Your task to perform on an android device: remove spam from my inbox in the gmail app Image 0: 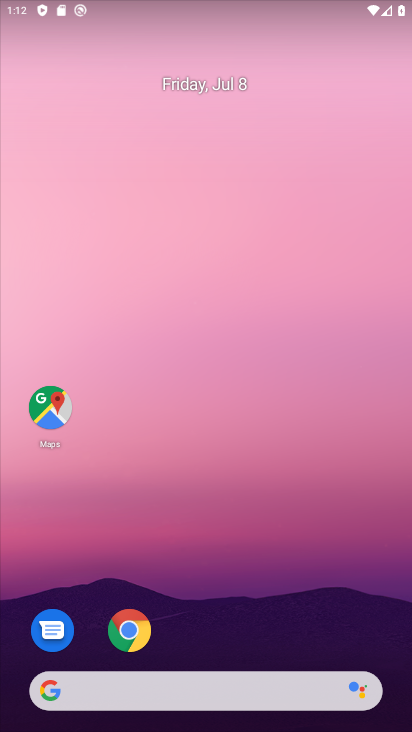
Step 0: click (96, 18)
Your task to perform on an android device: remove spam from my inbox in the gmail app Image 1: 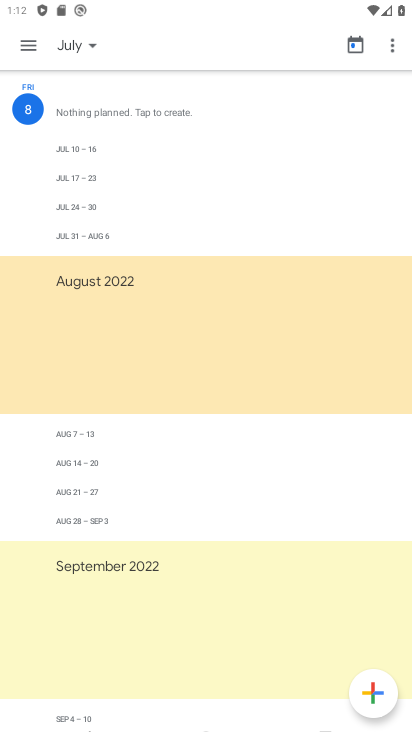
Step 1: drag from (200, 258) to (194, 207)
Your task to perform on an android device: remove spam from my inbox in the gmail app Image 2: 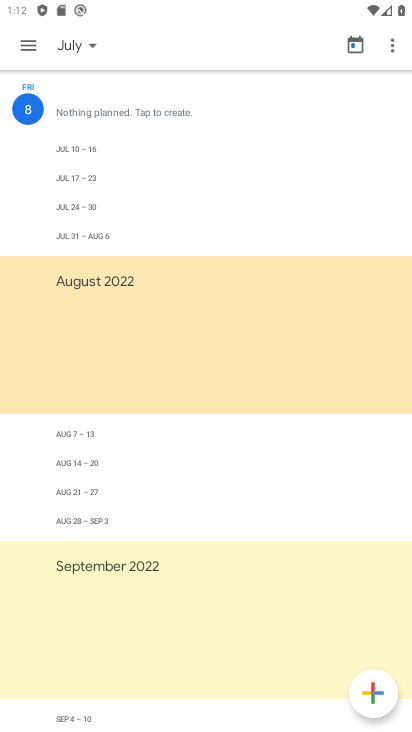
Step 2: press back button
Your task to perform on an android device: remove spam from my inbox in the gmail app Image 3: 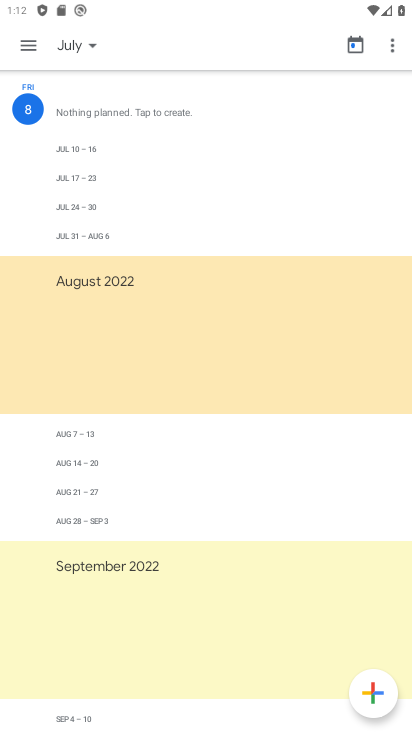
Step 3: press back button
Your task to perform on an android device: remove spam from my inbox in the gmail app Image 4: 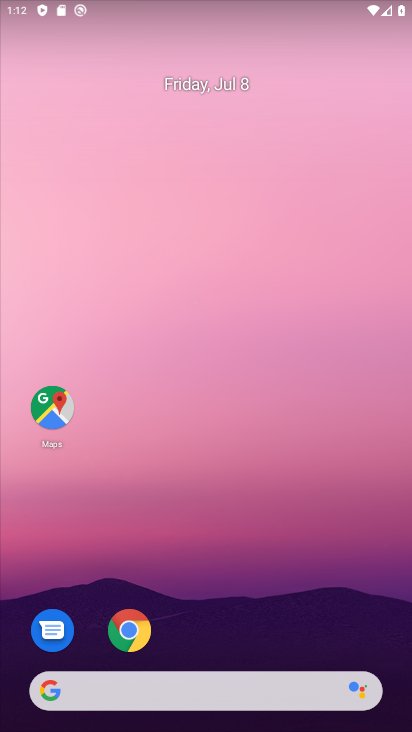
Step 4: drag from (234, 625) to (182, 252)
Your task to perform on an android device: remove spam from my inbox in the gmail app Image 5: 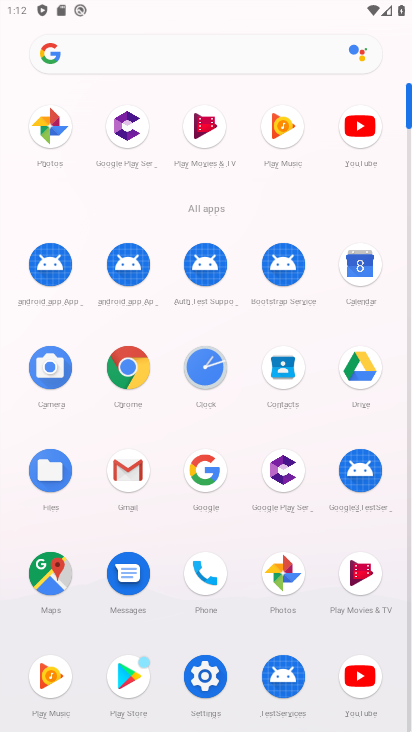
Step 5: click (126, 466)
Your task to perform on an android device: remove spam from my inbox in the gmail app Image 6: 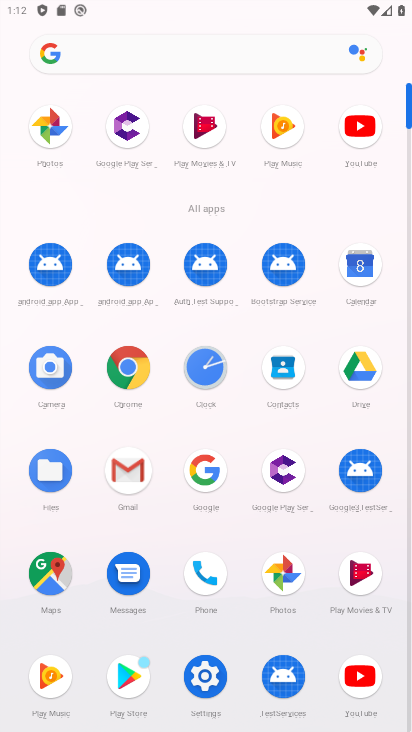
Step 6: click (128, 464)
Your task to perform on an android device: remove spam from my inbox in the gmail app Image 7: 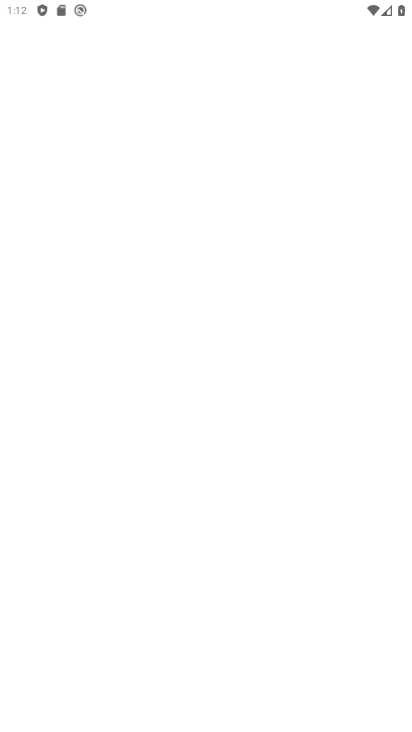
Step 7: click (129, 463)
Your task to perform on an android device: remove spam from my inbox in the gmail app Image 8: 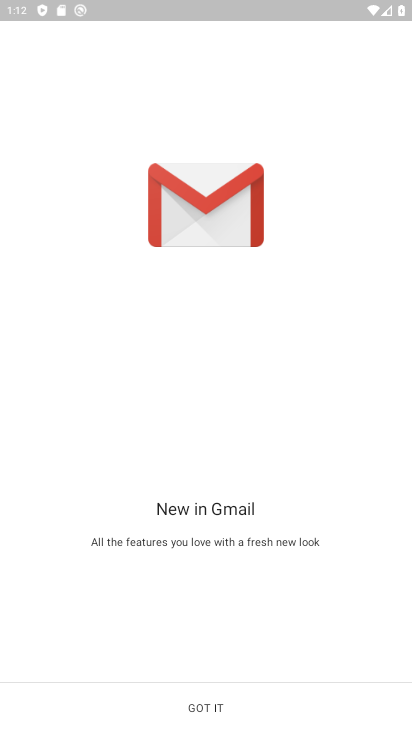
Step 8: click (210, 708)
Your task to perform on an android device: remove spam from my inbox in the gmail app Image 9: 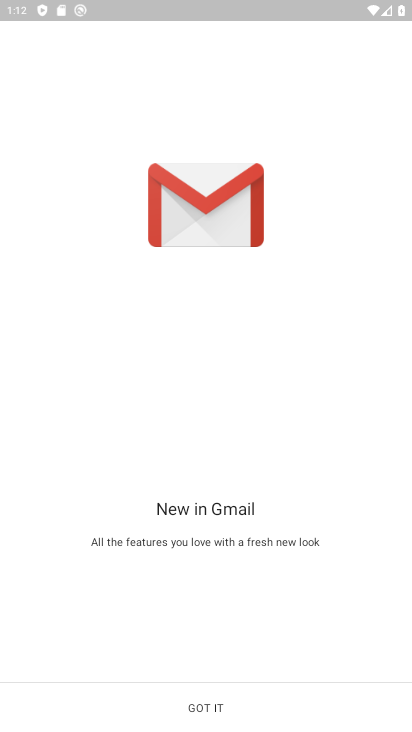
Step 9: click (210, 707)
Your task to perform on an android device: remove spam from my inbox in the gmail app Image 10: 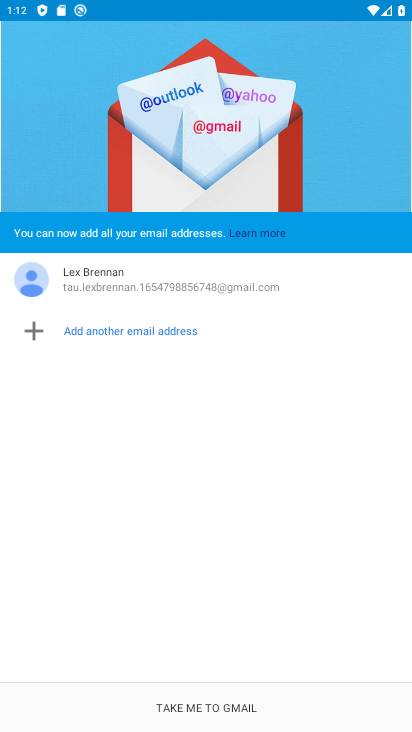
Step 10: click (206, 701)
Your task to perform on an android device: remove spam from my inbox in the gmail app Image 11: 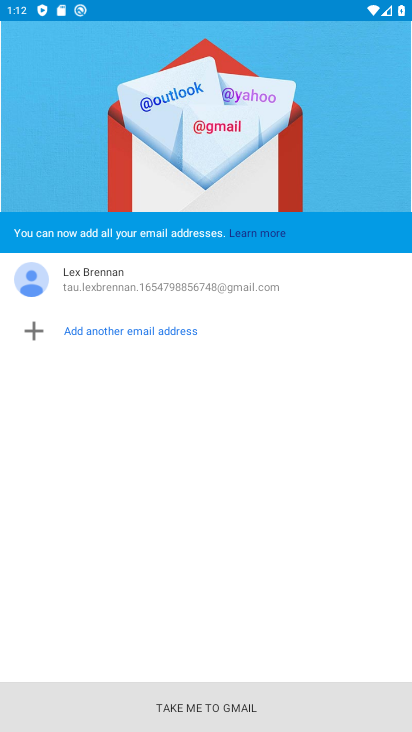
Step 11: click (206, 701)
Your task to perform on an android device: remove spam from my inbox in the gmail app Image 12: 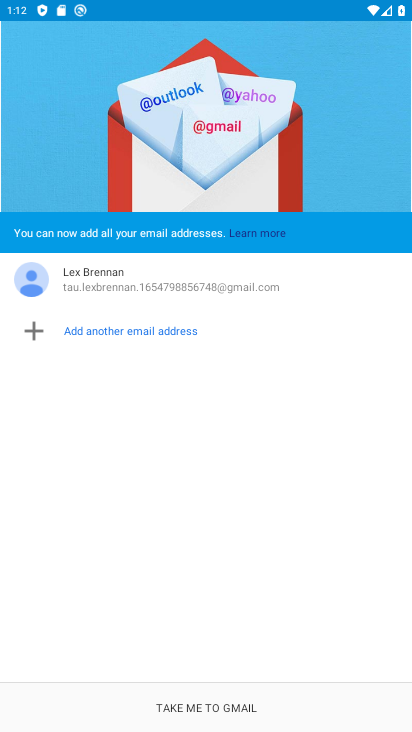
Step 12: click (206, 701)
Your task to perform on an android device: remove spam from my inbox in the gmail app Image 13: 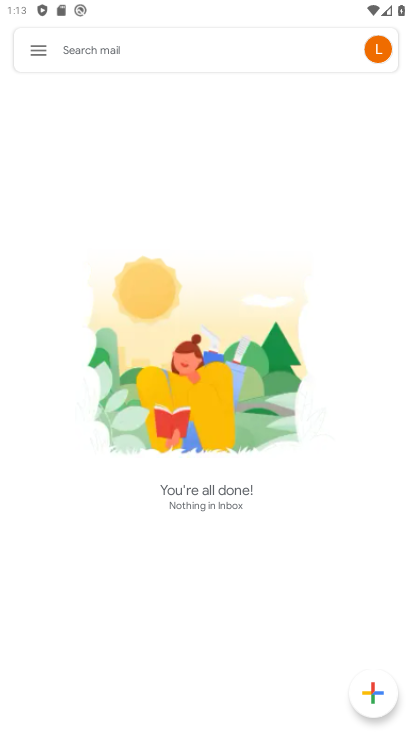
Step 13: click (37, 51)
Your task to perform on an android device: remove spam from my inbox in the gmail app Image 14: 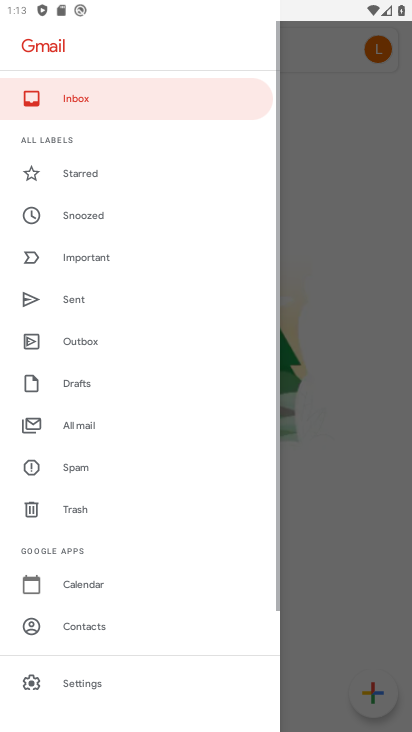
Step 14: click (37, 45)
Your task to perform on an android device: remove spam from my inbox in the gmail app Image 15: 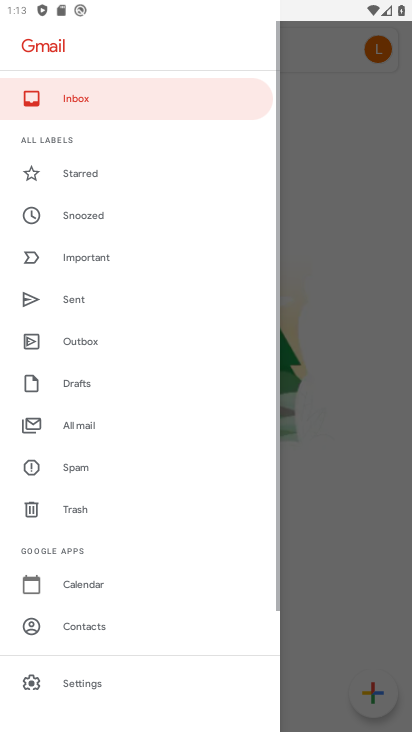
Step 15: click (37, 46)
Your task to perform on an android device: remove spam from my inbox in the gmail app Image 16: 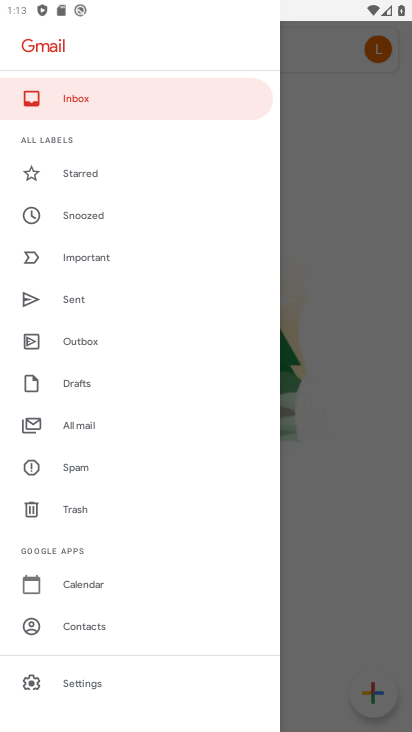
Step 16: click (67, 461)
Your task to perform on an android device: remove spam from my inbox in the gmail app Image 17: 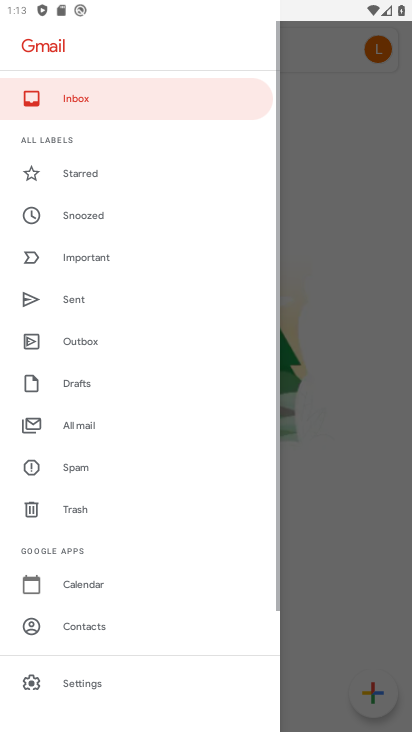
Step 17: click (67, 461)
Your task to perform on an android device: remove spam from my inbox in the gmail app Image 18: 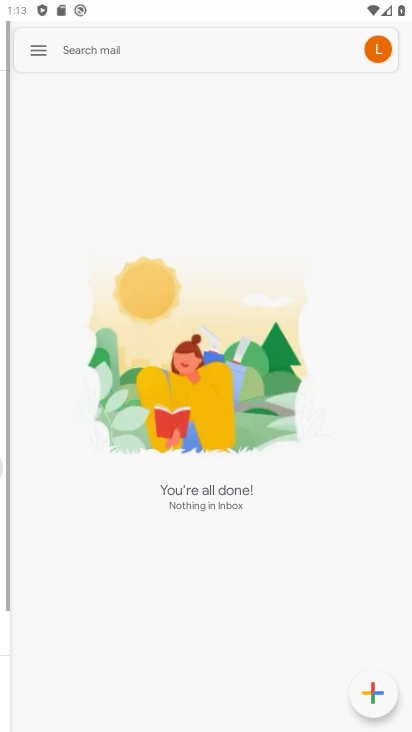
Step 18: click (67, 461)
Your task to perform on an android device: remove spam from my inbox in the gmail app Image 19: 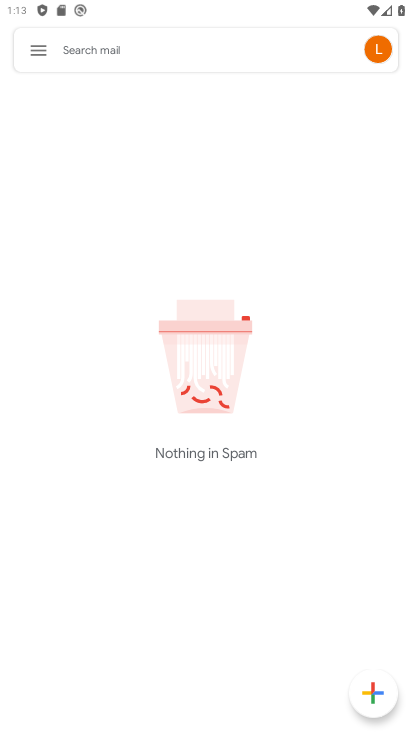
Step 19: task complete